Your task to perform on an android device: create a new album in the google photos Image 0: 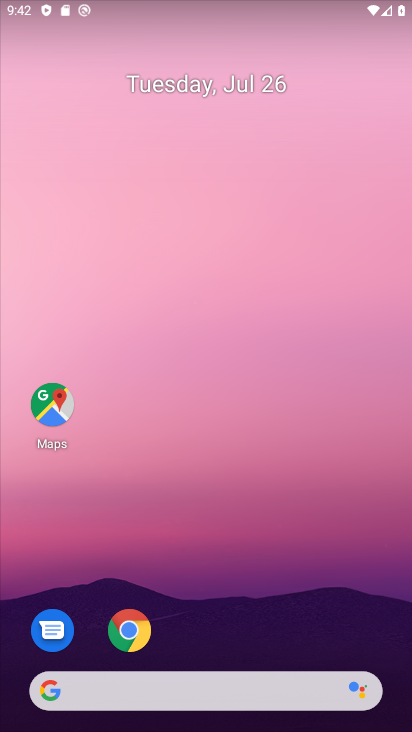
Step 0: drag from (397, 663) to (330, 160)
Your task to perform on an android device: create a new album in the google photos Image 1: 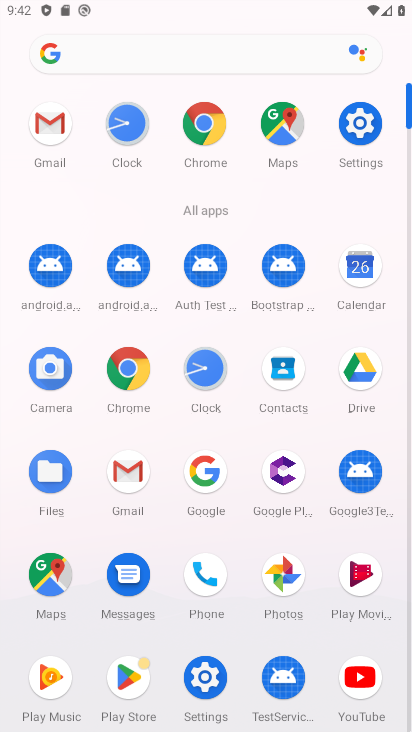
Step 1: click (283, 575)
Your task to perform on an android device: create a new album in the google photos Image 2: 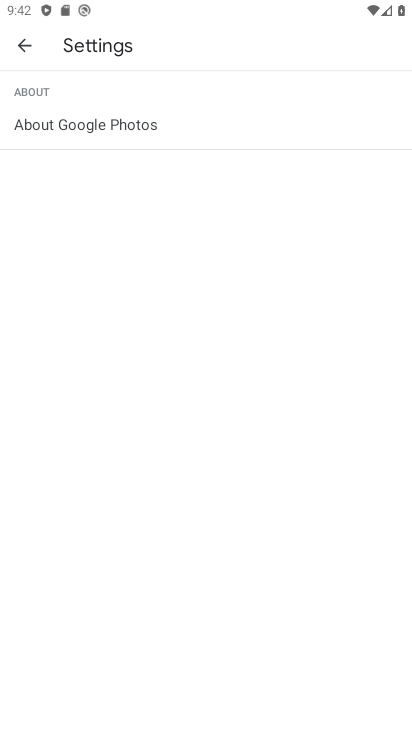
Step 2: press back button
Your task to perform on an android device: create a new album in the google photos Image 3: 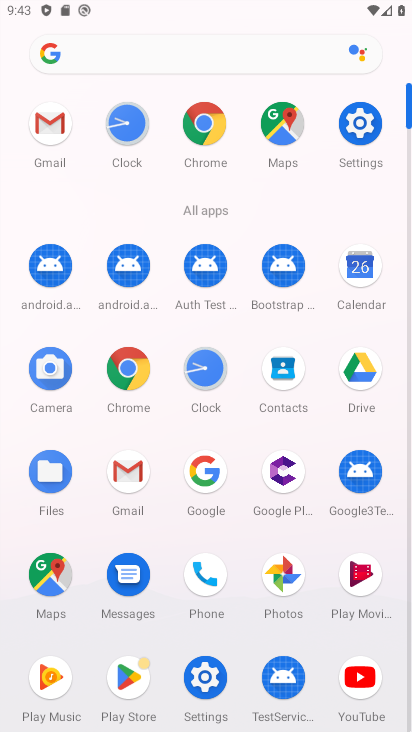
Step 3: click (284, 575)
Your task to perform on an android device: create a new album in the google photos Image 4: 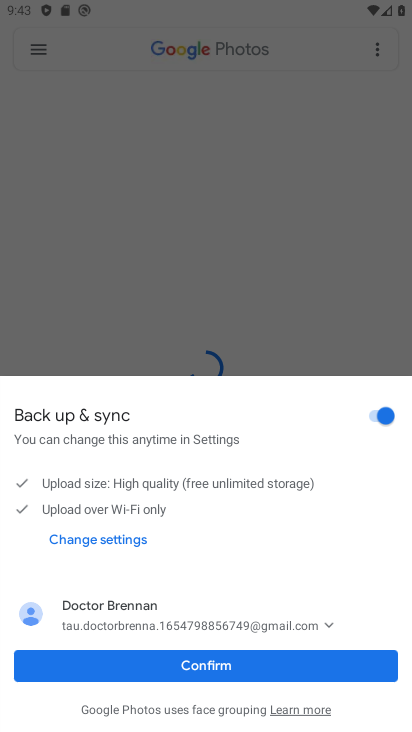
Step 4: click (208, 665)
Your task to perform on an android device: create a new album in the google photos Image 5: 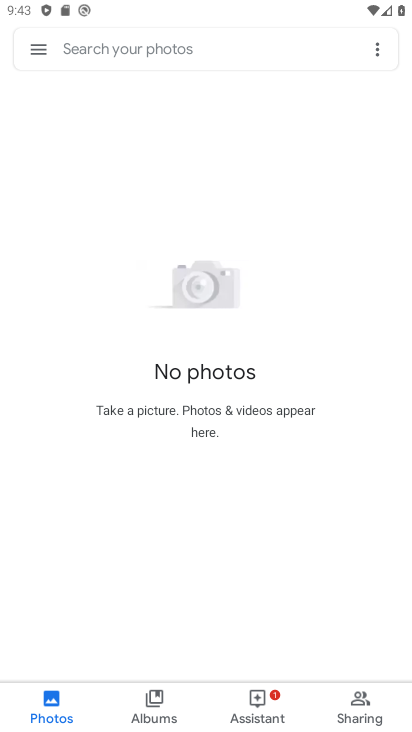
Step 5: click (156, 703)
Your task to perform on an android device: create a new album in the google photos Image 6: 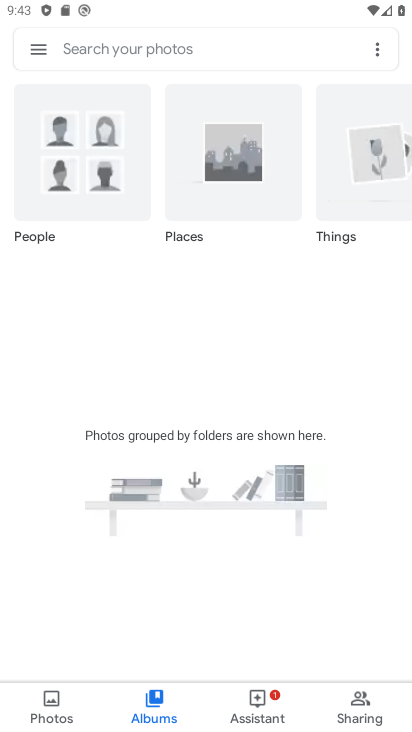
Step 6: task complete